Your task to perform on an android device: Go to ESPN.com Image 0: 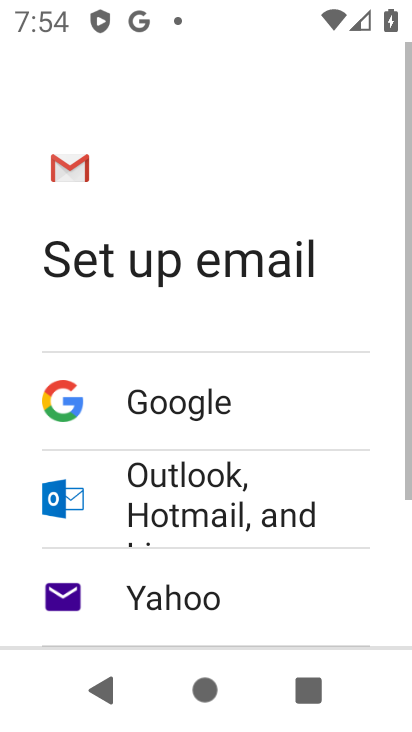
Step 0: press home button
Your task to perform on an android device: Go to ESPN.com Image 1: 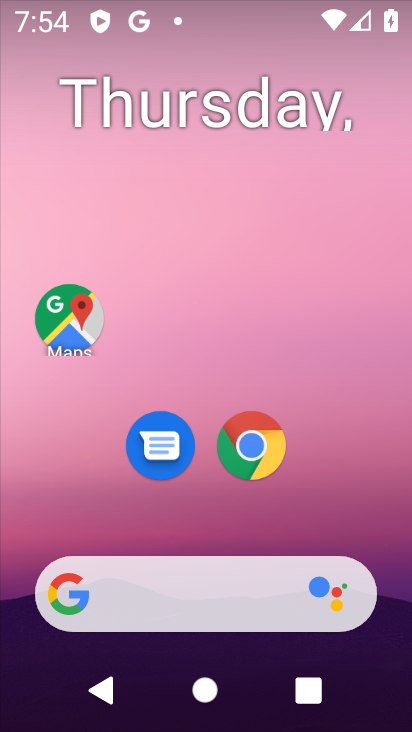
Step 1: drag from (356, 439) to (362, 144)
Your task to perform on an android device: Go to ESPN.com Image 2: 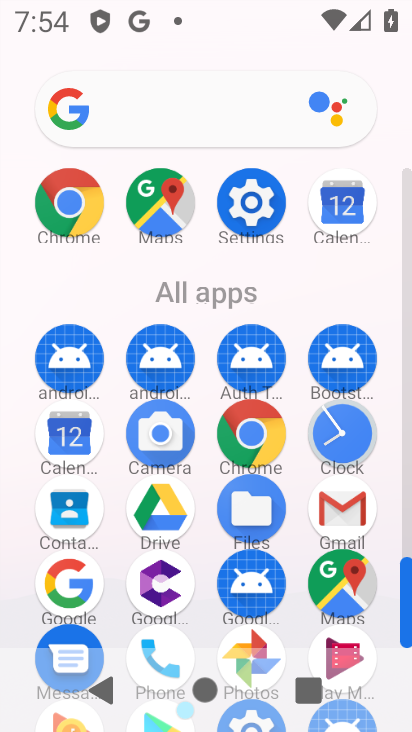
Step 2: click (80, 203)
Your task to perform on an android device: Go to ESPN.com Image 3: 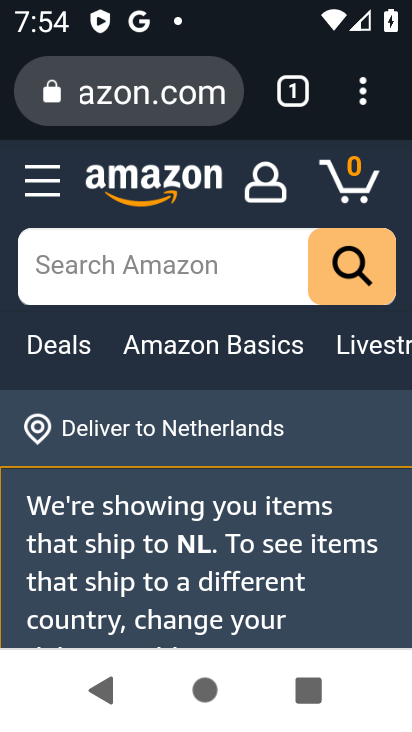
Step 3: click (185, 97)
Your task to perform on an android device: Go to ESPN.com Image 4: 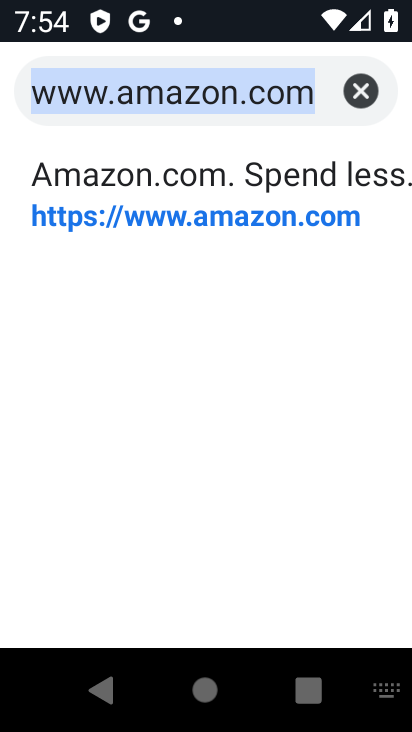
Step 4: click (361, 97)
Your task to perform on an android device: Go to ESPN.com Image 5: 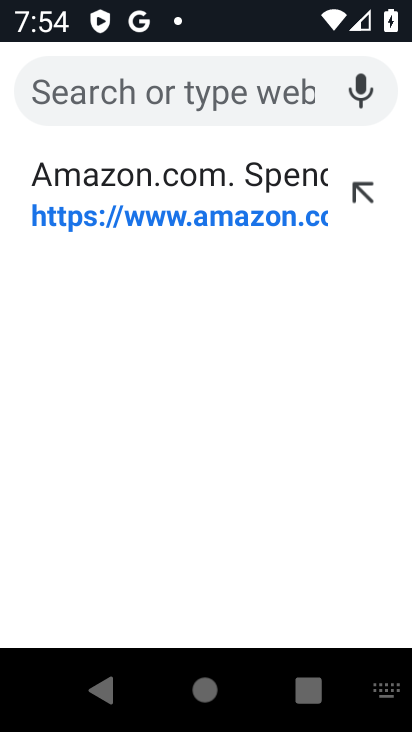
Step 5: click (194, 88)
Your task to perform on an android device: Go to ESPN.com Image 6: 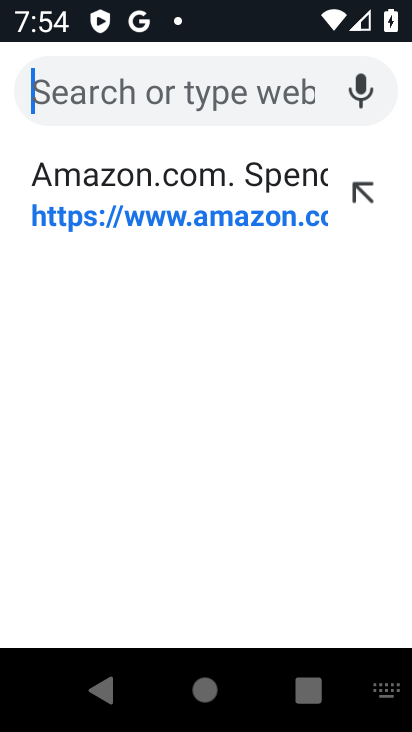
Step 6: type "espn.com"
Your task to perform on an android device: Go to ESPN.com Image 7: 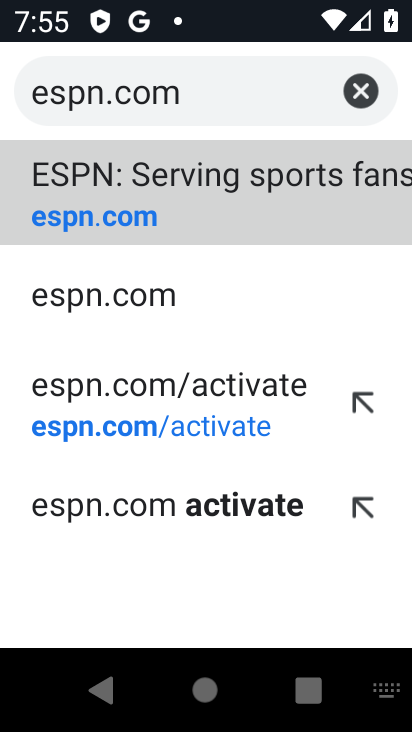
Step 7: click (193, 206)
Your task to perform on an android device: Go to ESPN.com Image 8: 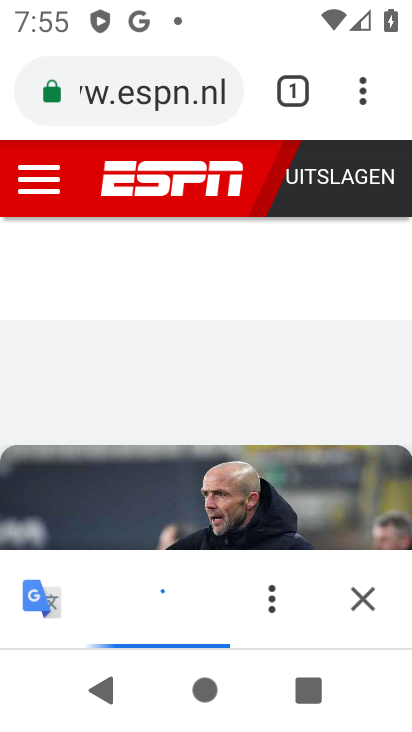
Step 8: task complete